Your task to perform on an android device: What's on my calendar tomorrow? Image 0: 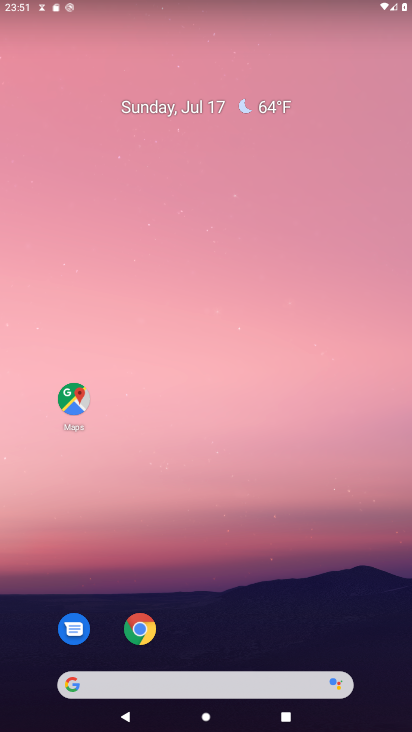
Step 0: drag from (246, 620) to (257, 247)
Your task to perform on an android device: What's on my calendar tomorrow? Image 1: 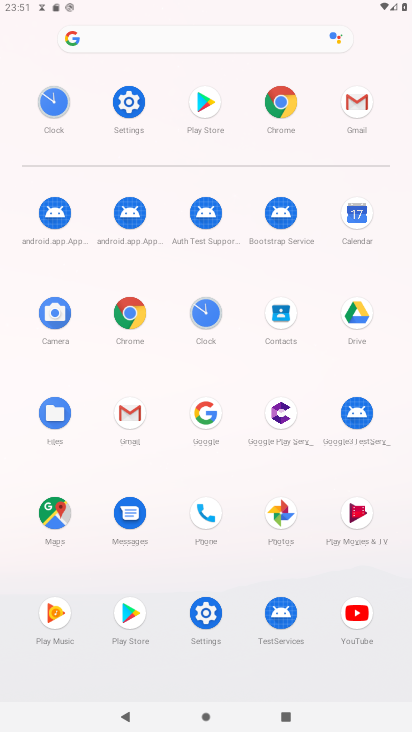
Step 1: click (359, 201)
Your task to perform on an android device: What's on my calendar tomorrow? Image 2: 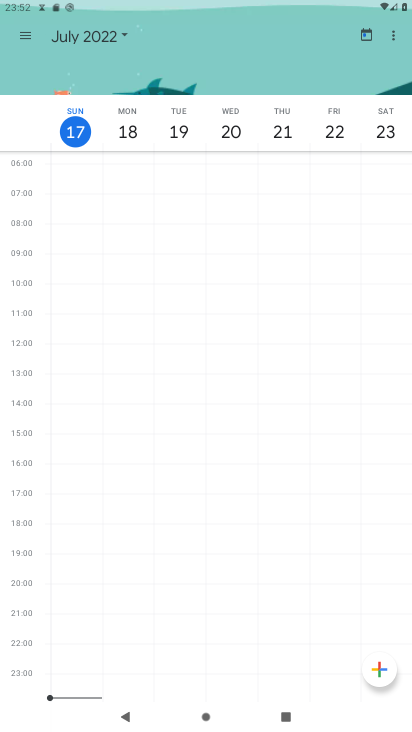
Step 2: click (175, 123)
Your task to perform on an android device: What's on my calendar tomorrow? Image 3: 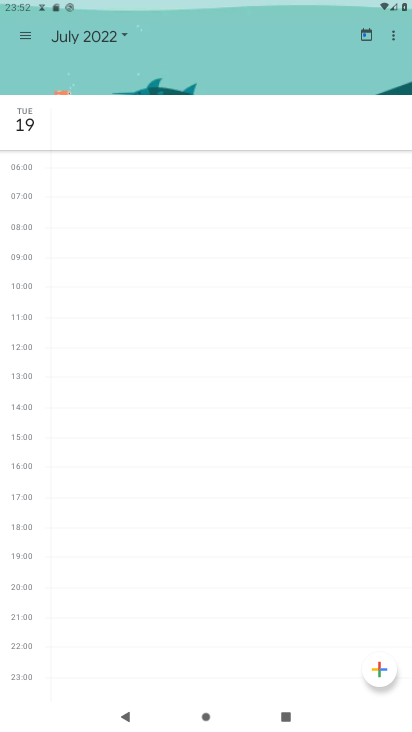
Step 3: task complete